Your task to perform on an android device: Open Yahoo.com Image 0: 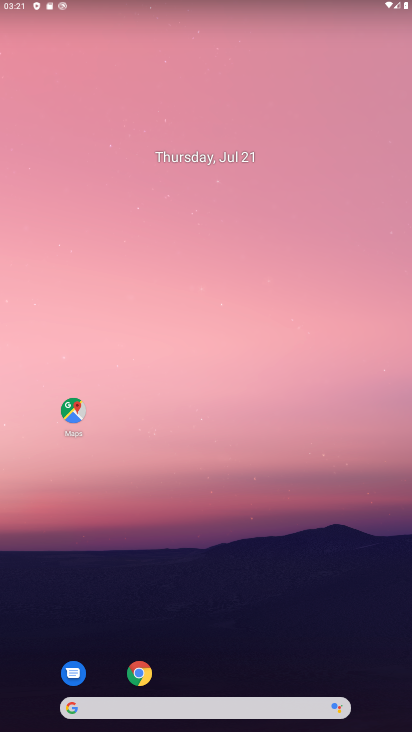
Step 0: drag from (261, 632) to (196, 268)
Your task to perform on an android device: Open Yahoo.com Image 1: 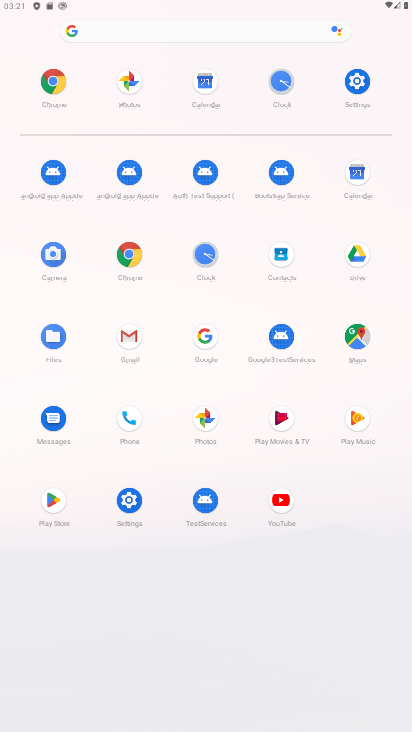
Step 1: click (126, 260)
Your task to perform on an android device: Open Yahoo.com Image 2: 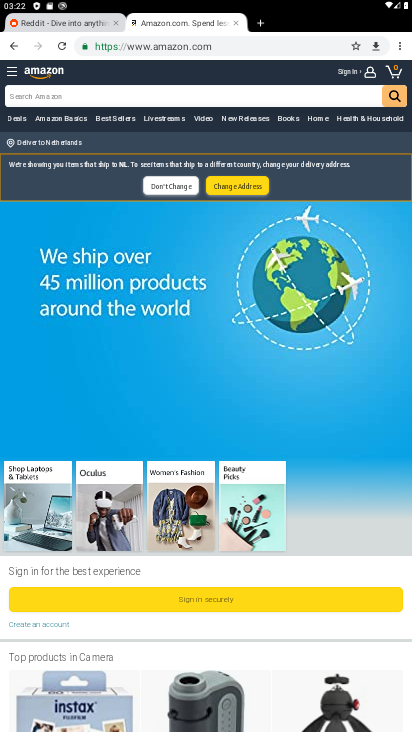
Step 2: click (157, 42)
Your task to perform on an android device: Open Yahoo.com Image 3: 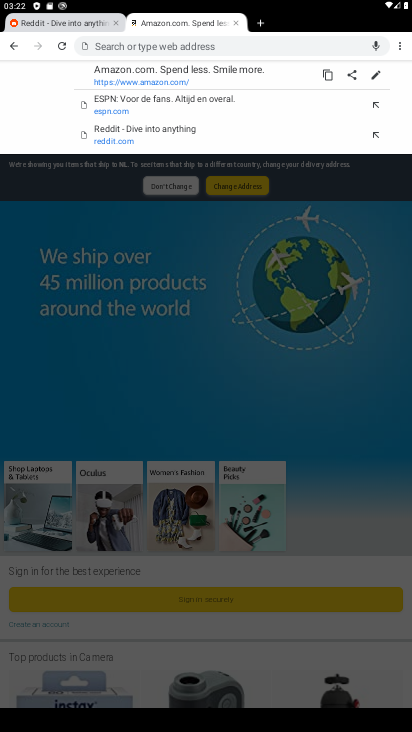
Step 3: type "yahoo.com"
Your task to perform on an android device: Open Yahoo.com Image 4: 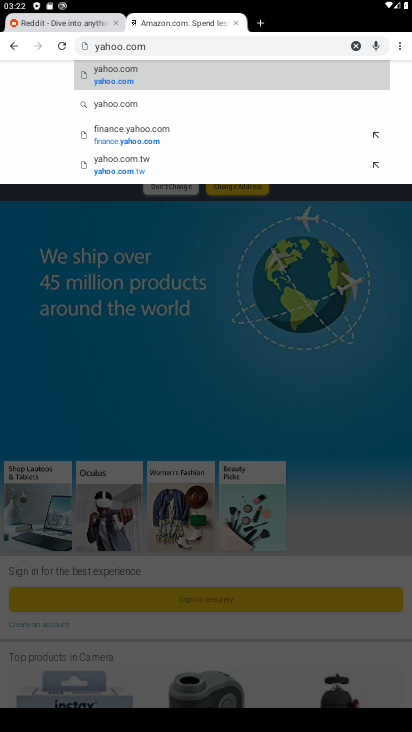
Step 4: click (163, 77)
Your task to perform on an android device: Open Yahoo.com Image 5: 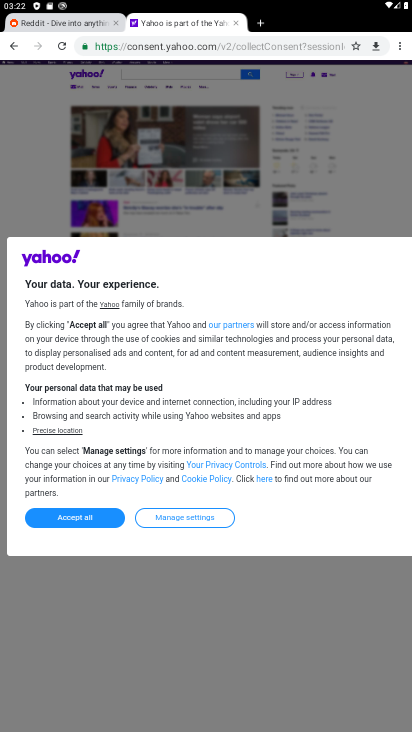
Step 5: task complete